Your task to perform on an android device: visit the assistant section in the google photos Image 0: 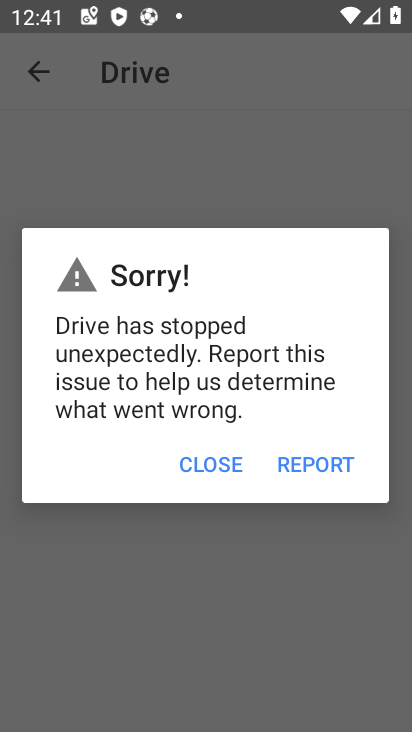
Step 0: press home button
Your task to perform on an android device: visit the assistant section in the google photos Image 1: 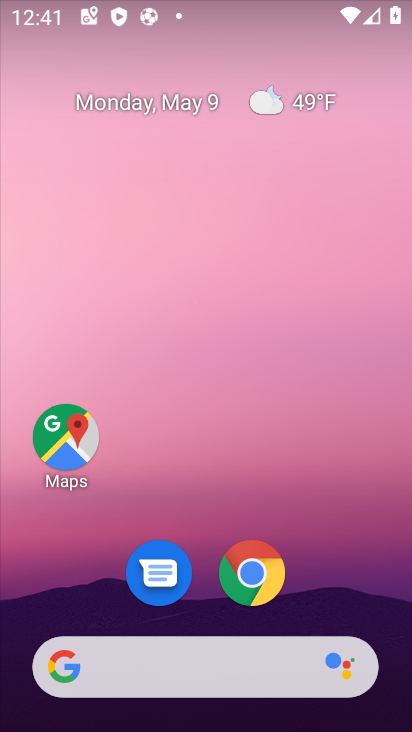
Step 1: drag from (231, 715) to (336, 72)
Your task to perform on an android device: visit the assistant section in the google photos Image 2: 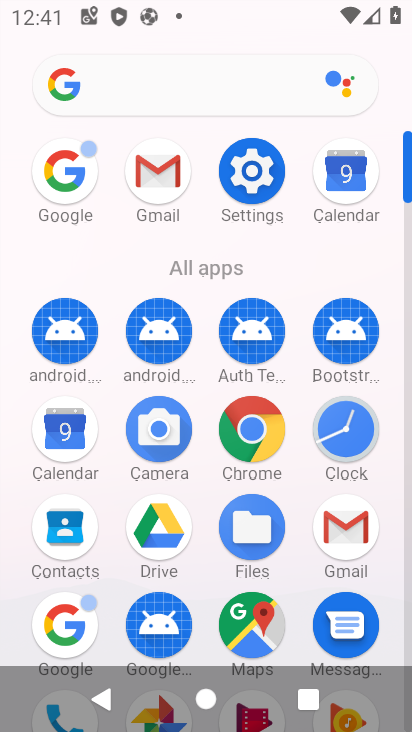
Step 2: drag from (268, 265) to (226, 34)
Your task to perform on an android device: visit the assistant section in the google photos Image 3: 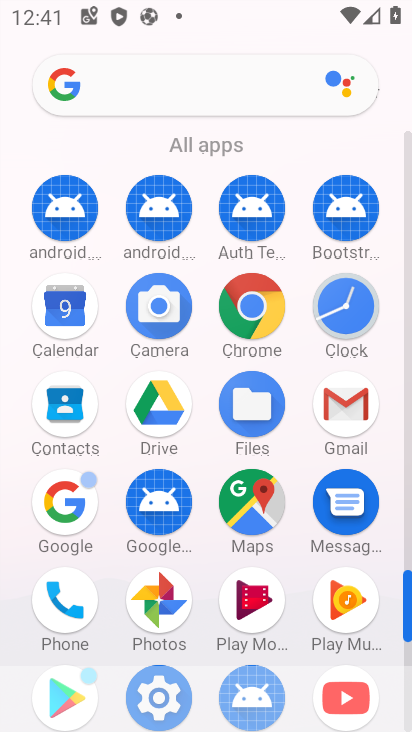
Step 3: click (157, 599)
Your task to perform on an android device: visit the assistant section in the google photos Image 4: 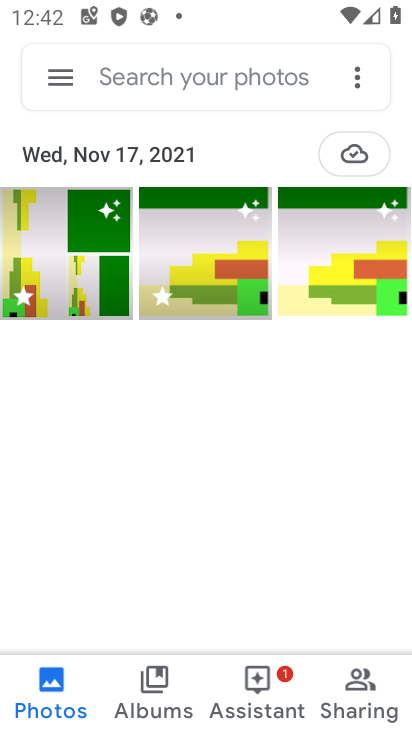
Step 4: click (263, 691)
Your task to perform on an android device: visit the assistant section in the google photos Image 5: 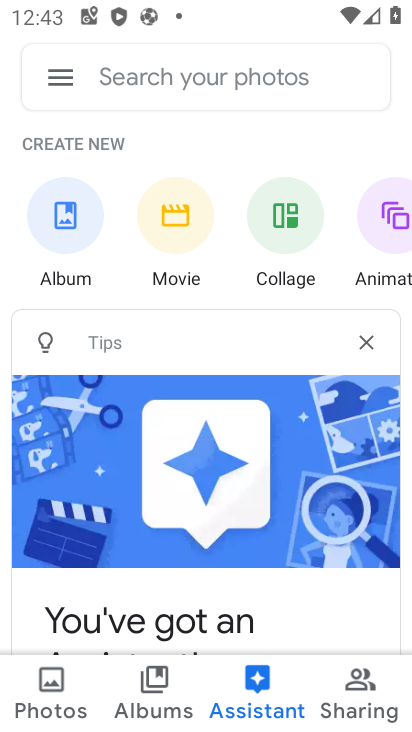
Step 5: task complete